Your task to perform on an android device: Open calendar and show me the fourth week of next month Image 0: 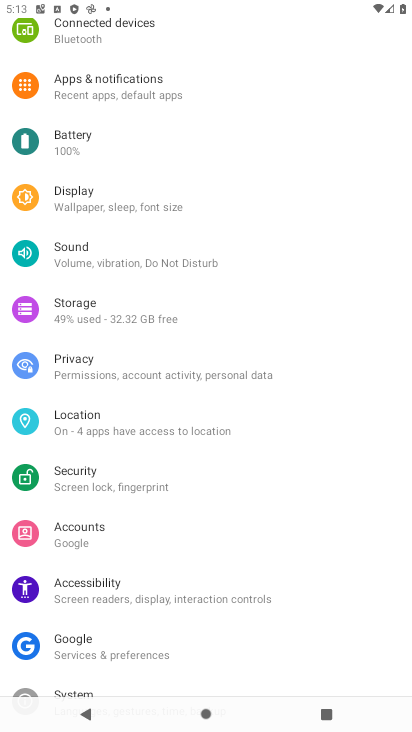
Step 0: press home button
Your task to perform on an android device: Open calendar and show me the fourth week of next month Image 1: 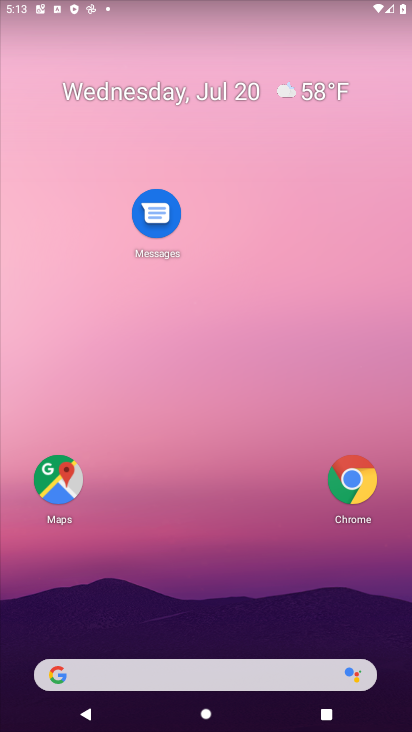
Step 1: drag from (180, 436) to (200, 282)
Your task to perform on an android device: Open calendar and show me the fourth week of next month Image 2: 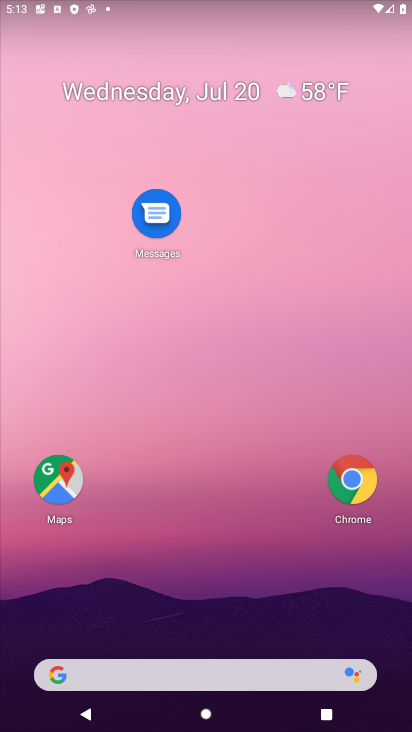
Step 2: click (221, 262)
Your task to perform on an android device: Open calendar and show me the fourth week of next month Image 3: 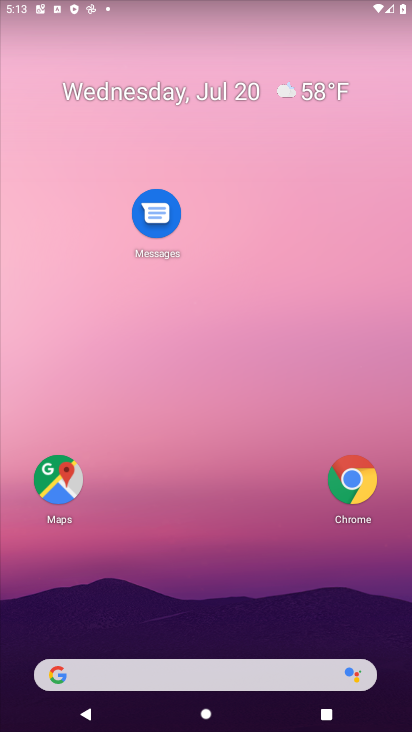
Step 3: drag from (203, 619) to (255, 276)
Your task to perform on an android device: Open calendar and show me the fourth week of next month Image 4: 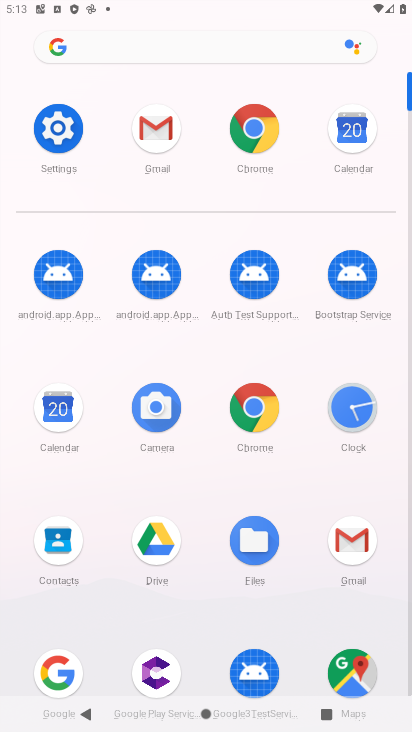
Step 4: click (347, 131)
Your task to perform on an android device: Open calendar and show me the fourth week of next month Image 5: 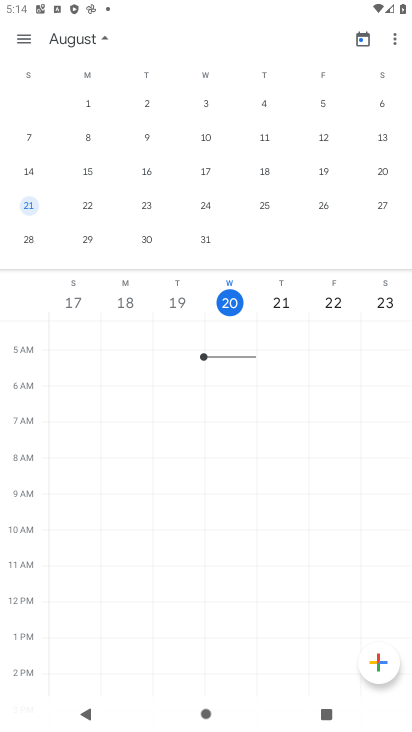
Step 5: task complete